Your task to perform on an android device: Go to settings Image 0: 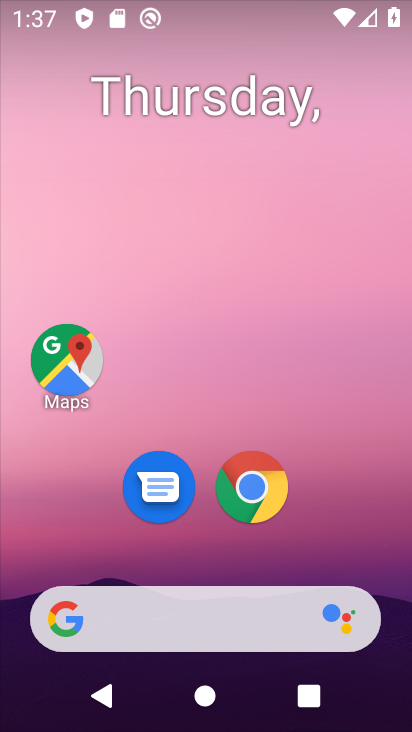
Step 0: drag from (214, 556) to (257, 55)
Your task to perform on an android device: Go to settings Image 1: 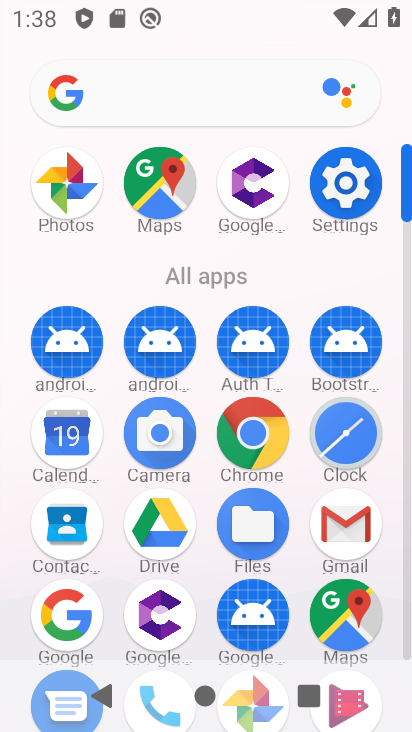
Step 1: click (338, 186)
Your task to perform on an android device: Go to settings Image 2: 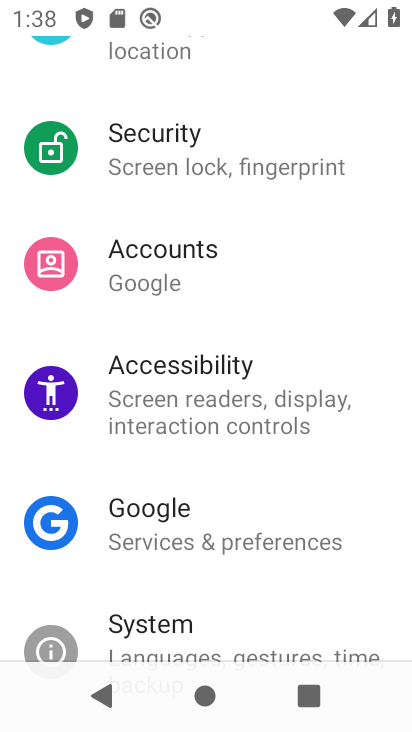
Step 2: task complete